Your task to perform on an android device: Open the files app Image 0: 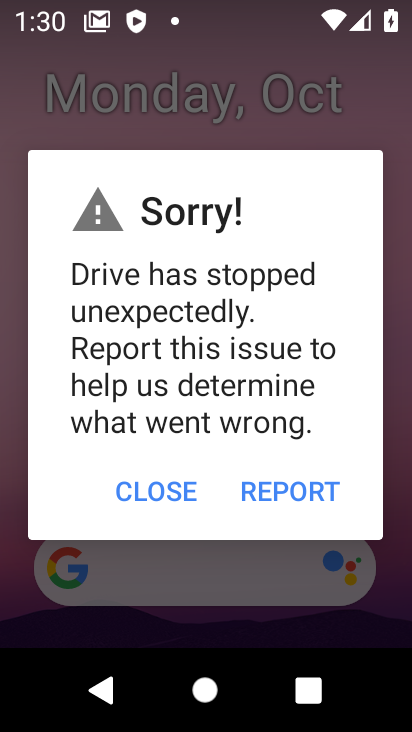
Step 0: click (157, 481)
Your task to perform on an android device: Open the files app Image 1: 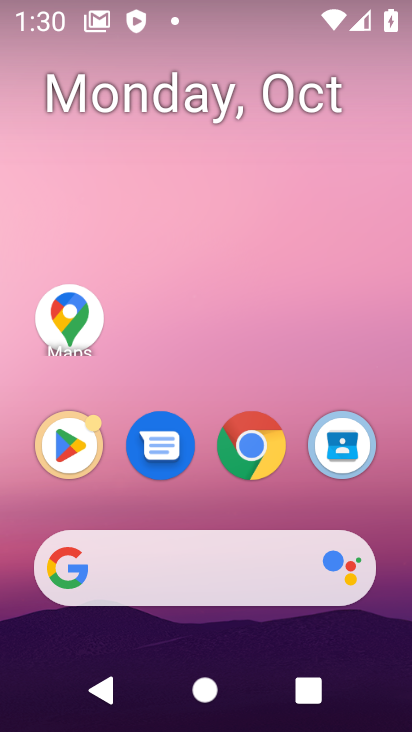
Step 1: drag from (199, 510) to (232, 132)
Your task to perform on an android device: Open the files app Image 2: 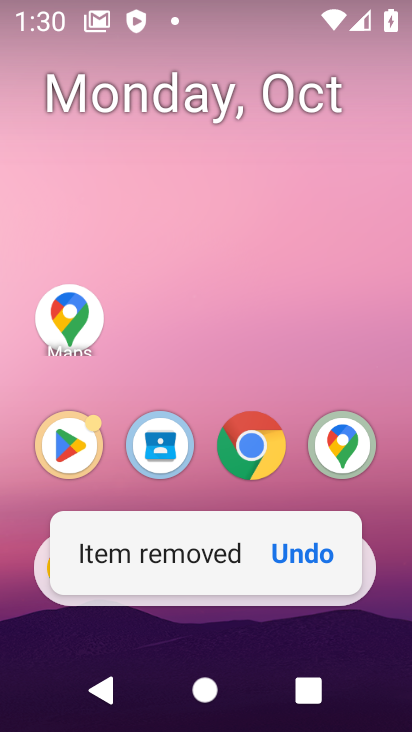
Step 2: click (207, 345)
Your task to perform on an android device: Open the files app Image 3: 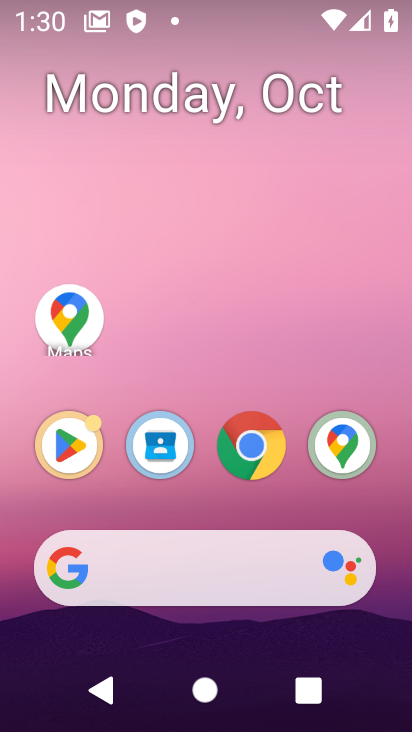
Step 3: drag from (190, 502) to (211, 116)
Your task to perform on an android device: Open the files app Image 4: 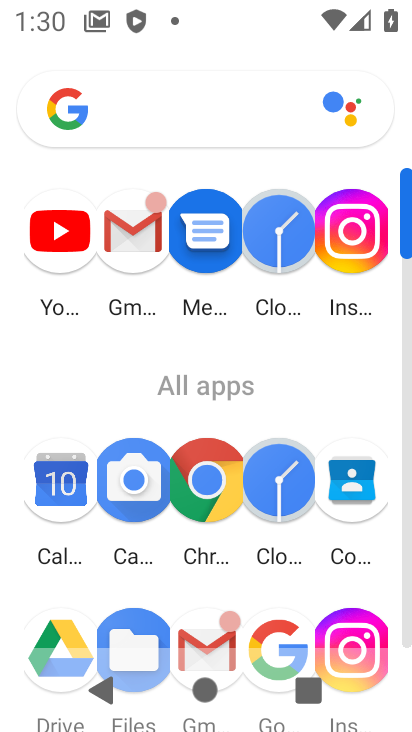
Step 4: drag from (239, 265) to (243, 120)
Your task to perform on an android device: Open the files app Image 5: 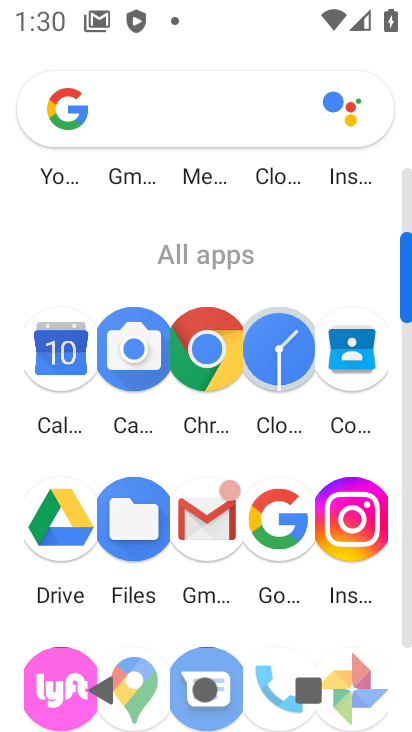
Step 5: click (125, 527)
Your task to perform on an android device: Open the files app Image 6: 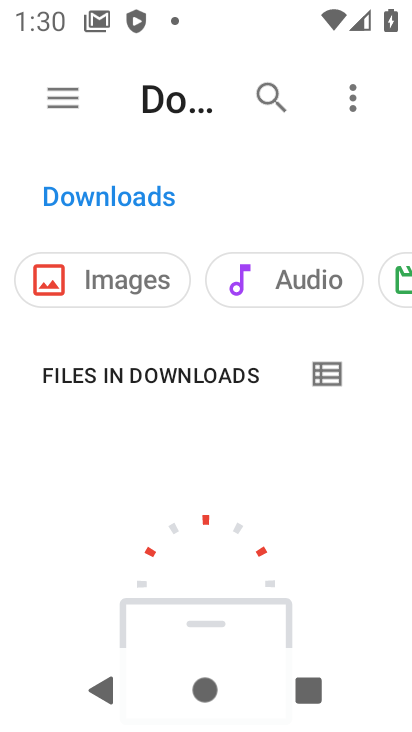
Step 6: task complete